Your task to perform on an android device: Check the weather Image 0: 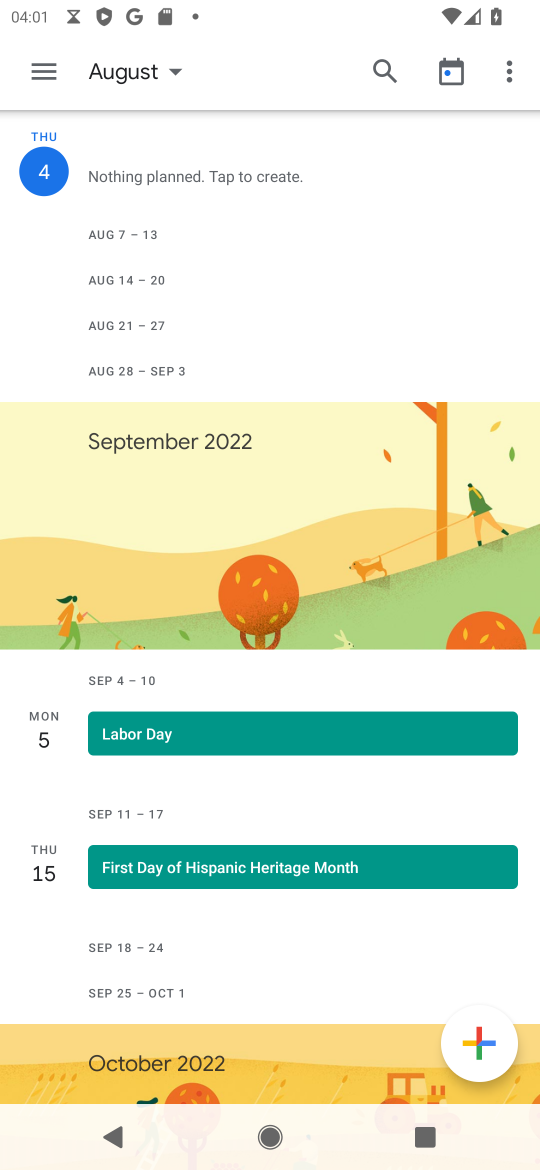
Step 0: press home button
Your task to perform on an android device: Check the weather Image 1: 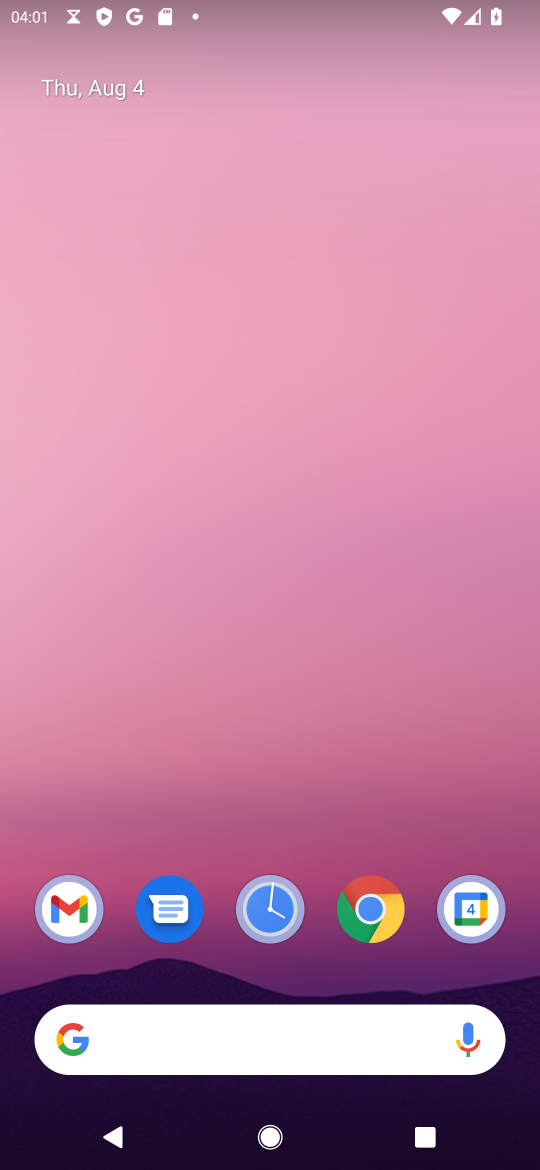
Step 1: click (166, 1027)
Your task to perform on an android device: Check the weather Image 2: 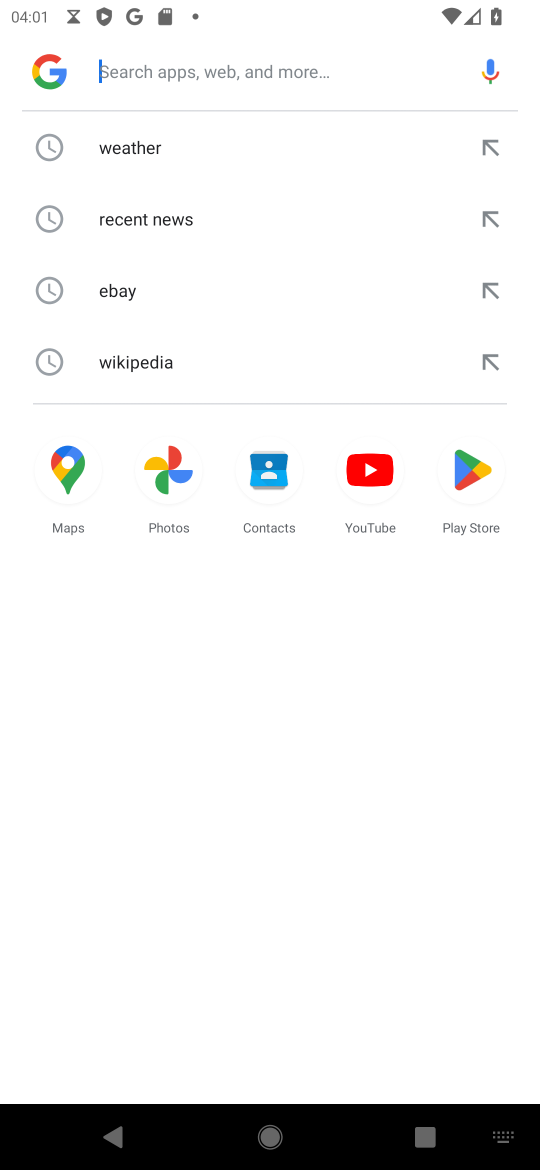
Step 2: click (135, 149)
Your task to perform on an android device: Check the weather Image 3: 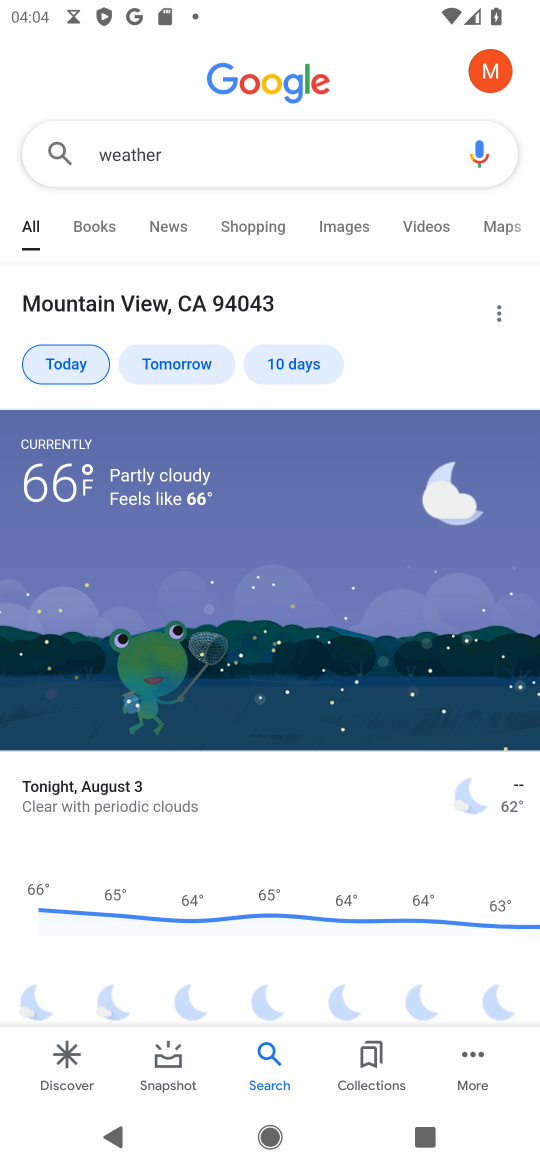
Step 3: task complete